Your task to perform on an android device: empty trash in the gmail app Image 0: 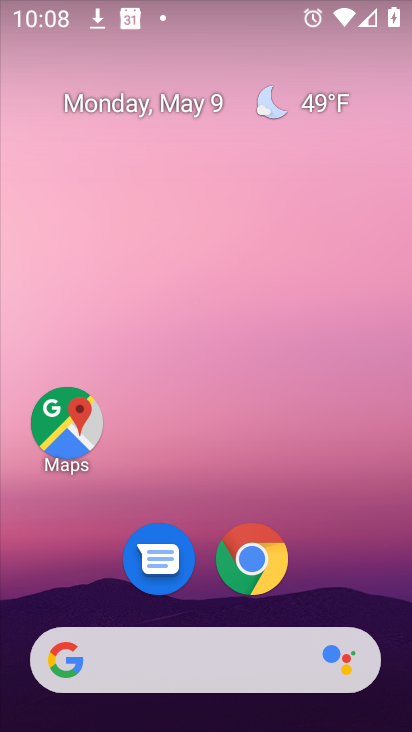
Step 0: drag from (202, 729) to (203, 196)
Your task to perform on an android device: empty trash in the gmail app Image 1: 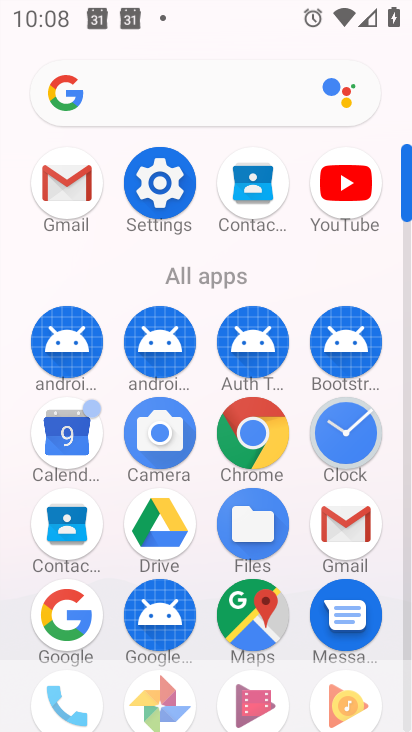
Step 1: click (341, 519)
Your task to perform on an android device: empty trash in the gmail app Image 2: 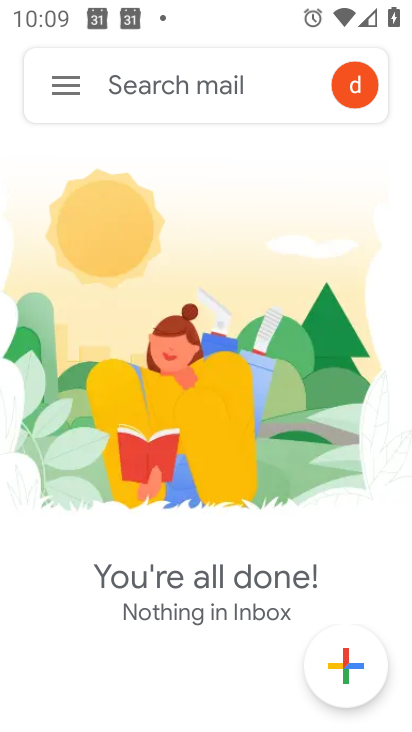
Step 2: click (62, 86)
Your task to perform on an android device: empty trash in the gmail app Image 3: 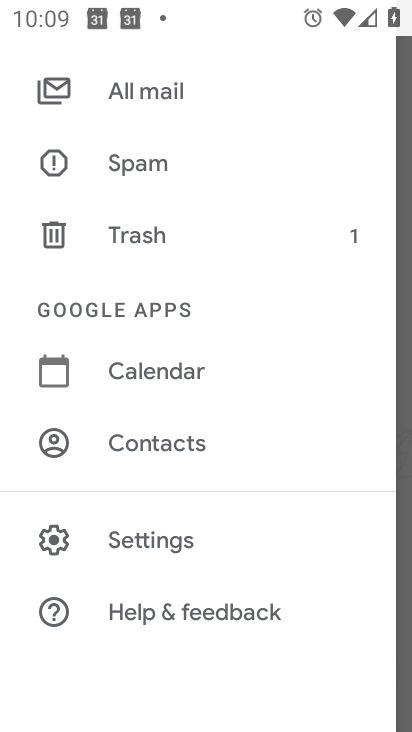
Step 3: click (144, 228)
Your task to perform on an android device: empty trash in the gmail app Image 4: 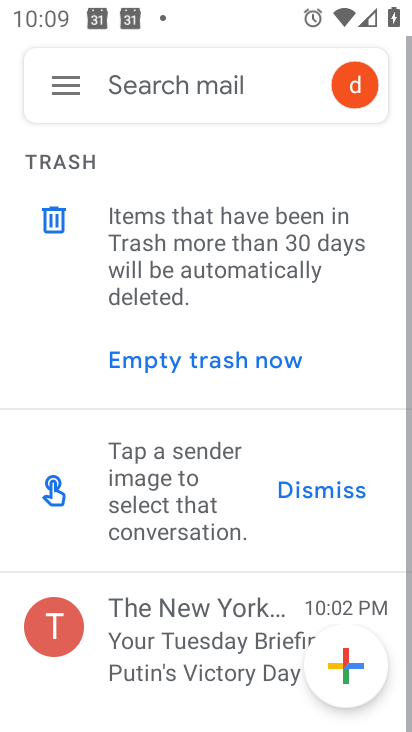
Step 4: click (64, 155)
Your task to perform on an android device: empty trash in the gmail app Image 5: 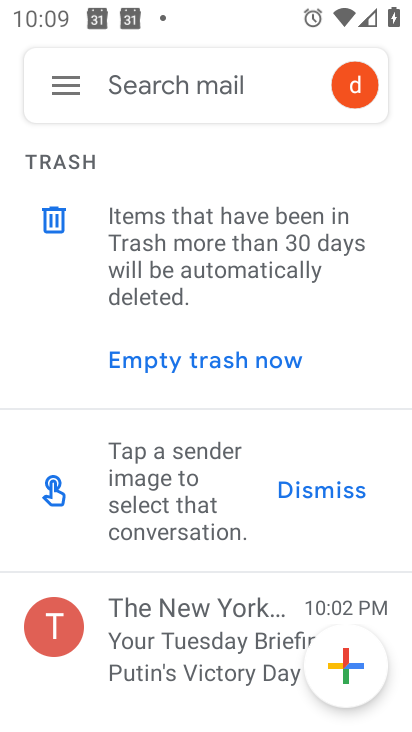
Step 5: click (204, 364)
Your task to perform on an android device: empty trash in the gmail app Image 6: 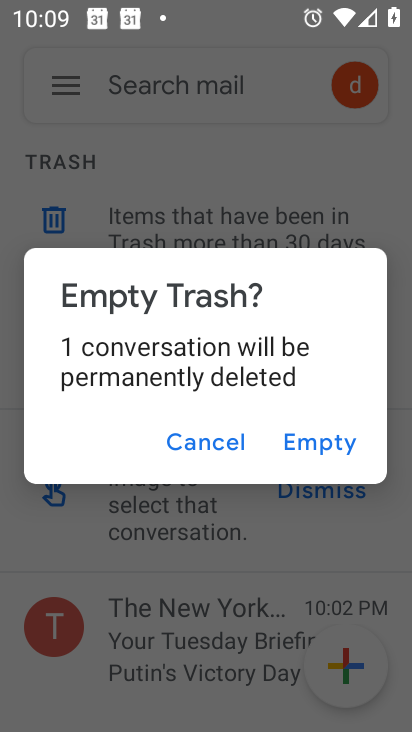
Step 6: click (321, 440)
Your task to perform on an android device: empty trash in the gmail app Image 7: 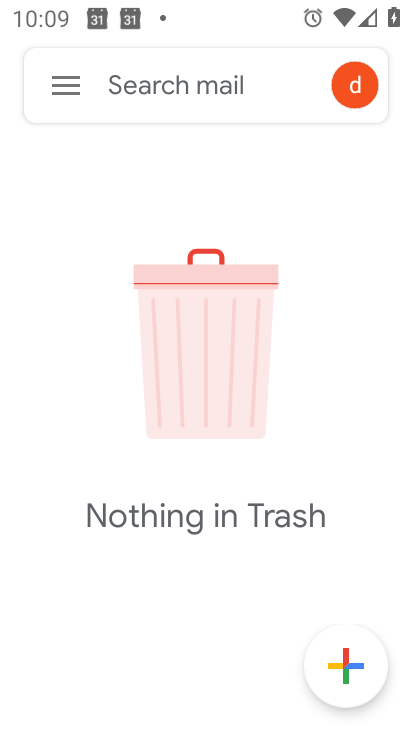
Step 7: task complete